Your task to perform on an android device: Show me productivity apps on the Play Store Image 0: 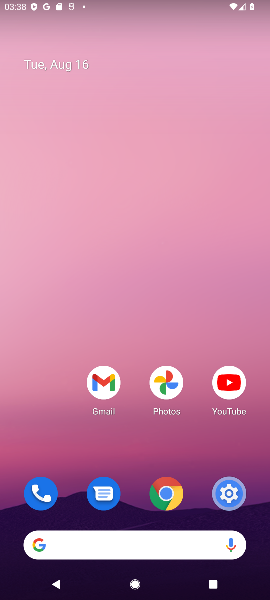
Step 0: press home button
Your task to perform on an android device: Show me productivity apps on the Play Store Image 1: 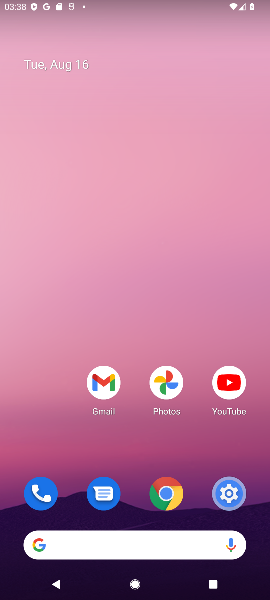
Step 1: drag from (70, 458) to (67, 87)
Your task to perform on an android device: Show me productivity apps on the Play Store Image 2: 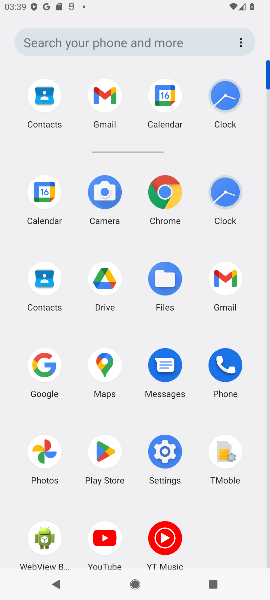
Step 2: click (103, 454)
Your task to perform on an android device: Show me productivity apps on the Play Store Image 3: 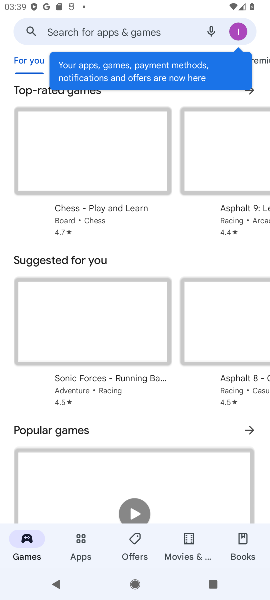
Step 3: click (76, 552)
Your task to perform on an android device: Show me productivity apps on the Play Store Image 4: 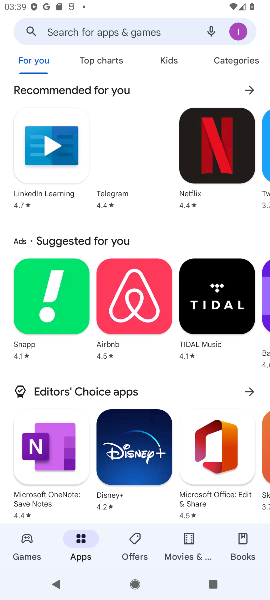
Step 4: task complete